Your task to perform on an android device: change notification settings in the gmail app Image 0: 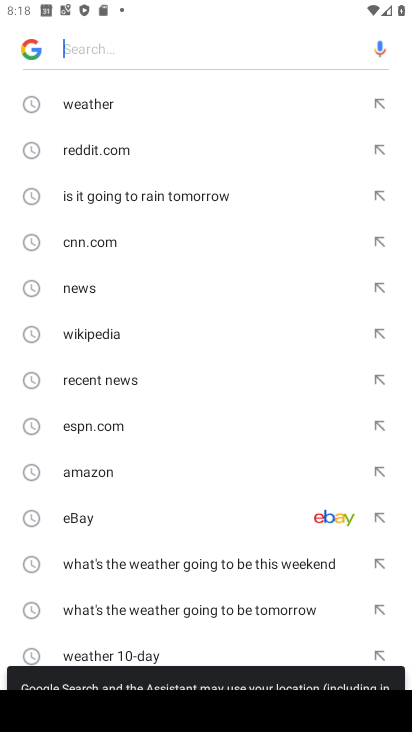
Step 0: press home button
Your task to perform on an android device: change notification settings in the gmail app Image 1: 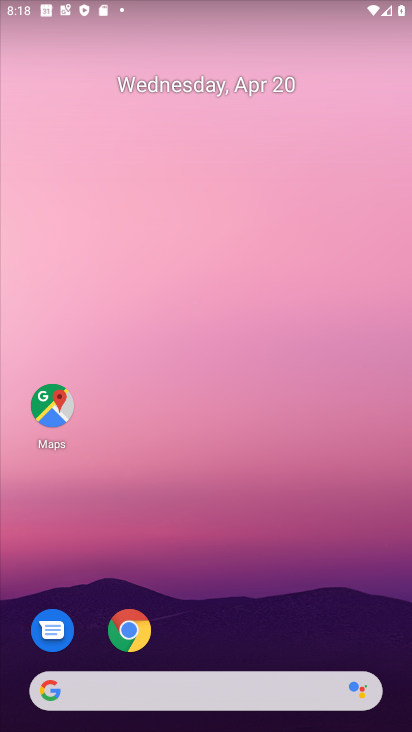
Step 1: drag from (255, 487) to (214, 29)
Your task to perform on an android device: change notification settings in the gmail app Image 2: 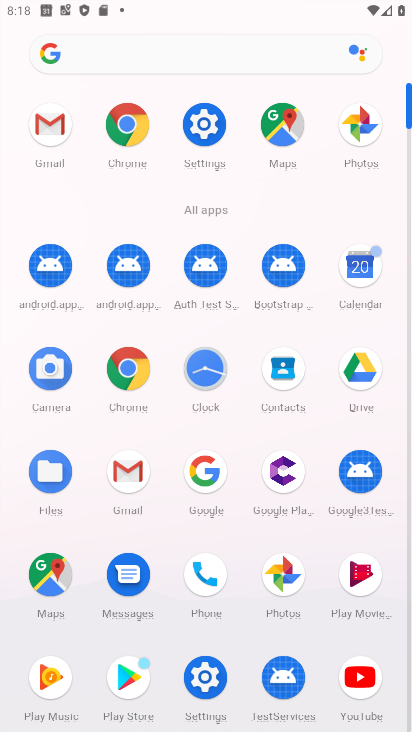
Step 2: click (123, 479)
Your task to perform on an android device: change notification settings in the gmail app Image 3: 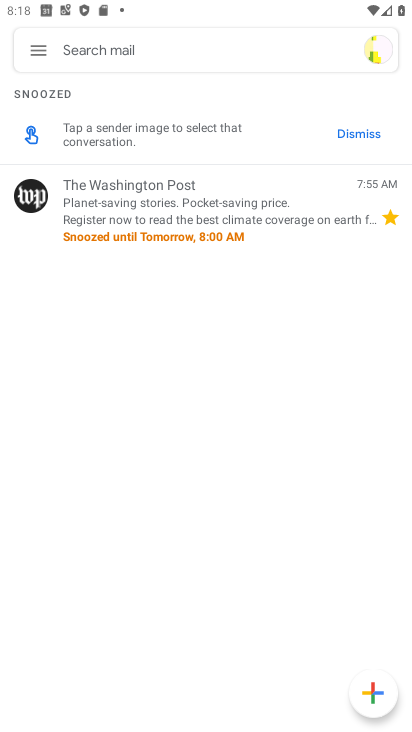
Step 3: click (43, 52)
Your task to perform on an android device: change notification settings in the gmail app Image 4: 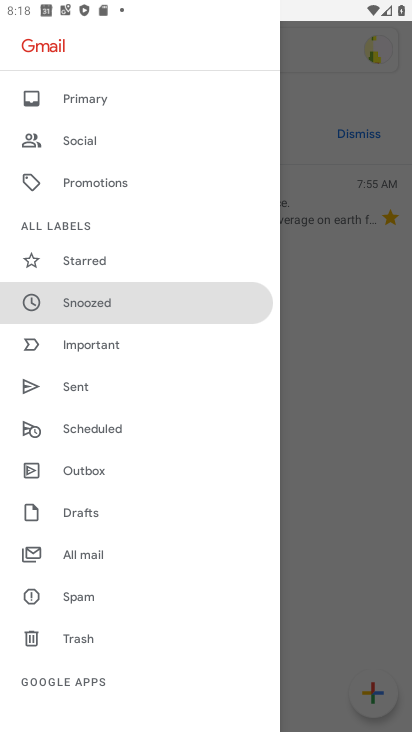
Step 4: drag from (126, 613) to (80, 374)
Your task to perform on an android device: change notification settings in the gmail app Image 5: 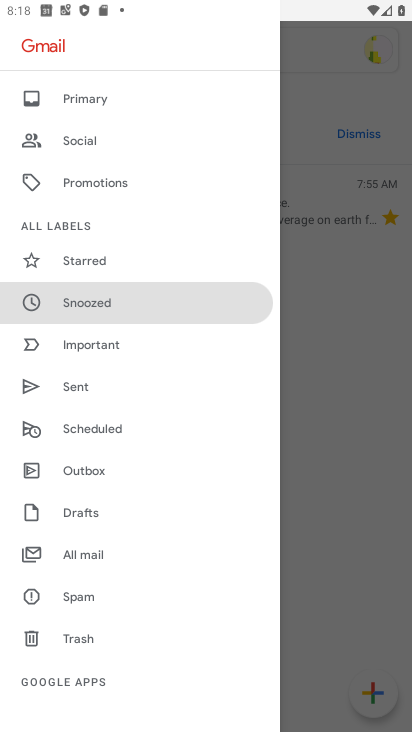
Step 5: drag from (105, 651) to (128, 232)
Your task to perform on an android device: change notification settings in the gmail app Image 6: 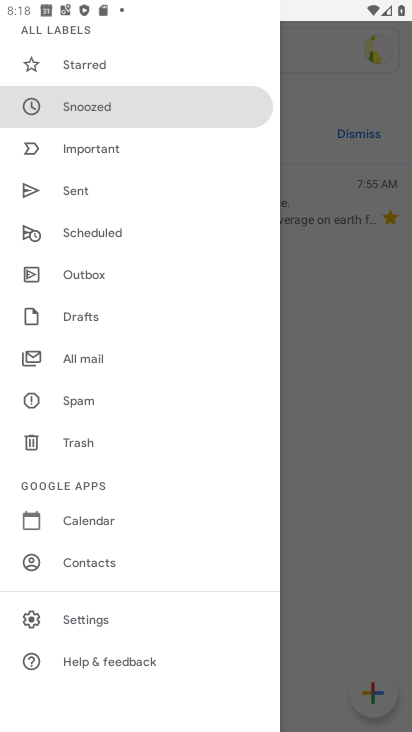
Step 6: click (88, 616)
Your task to perform on an android device: change notification settings in the gmail app Image 7: 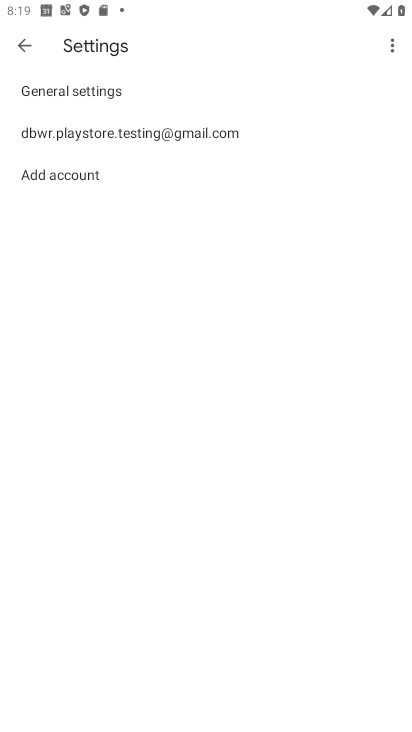
Step 7: click (118, 87)
Your task to perform on an android device: change notification settings in the gmail app Image 8: 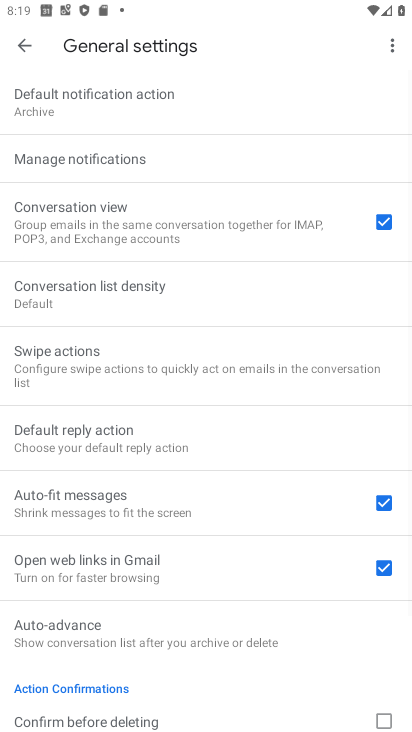
Step 8: click (111, 165)
Your task to perform on an android device: change notification settings in the gmail app Image 9: 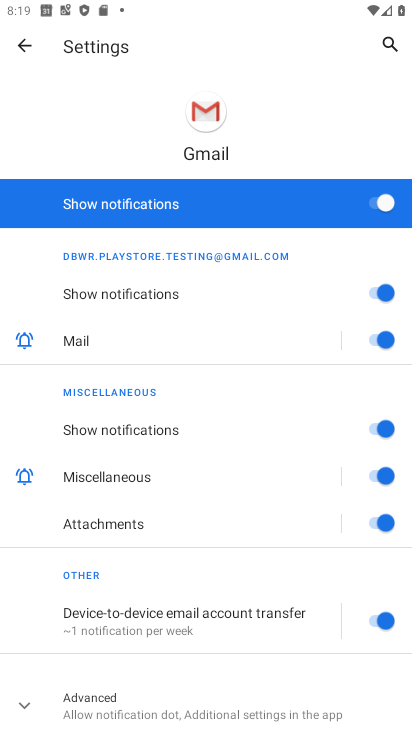
Step 9: click (374, 474)
Your task to perform on an android device: change notification settings in the gmail app Image 10: 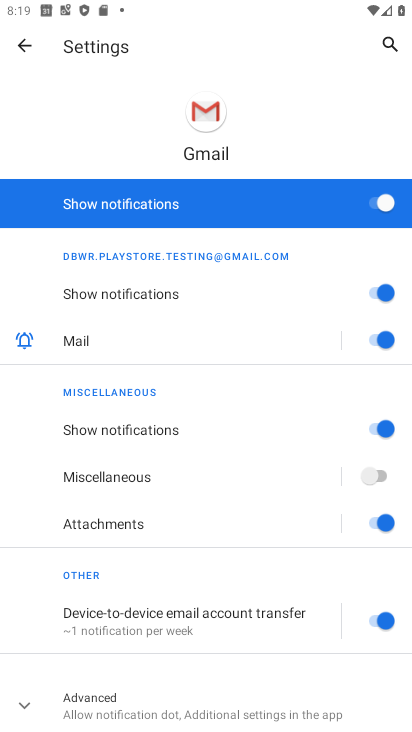
Step 10: task complete